Your task to perform on an android device: Go to display settings Image 0: 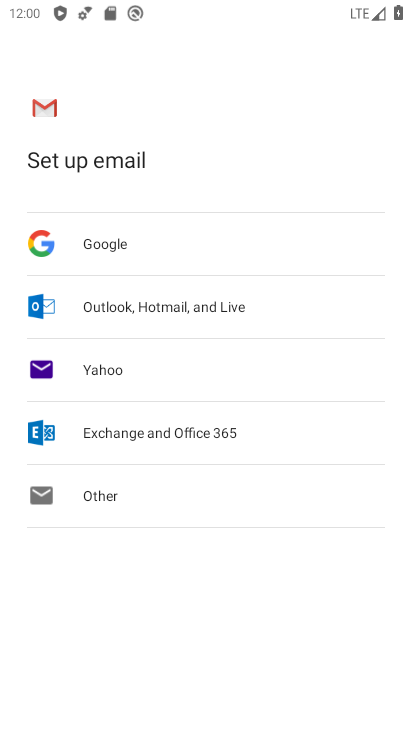
Step 0: press home button
Your task to perform on an android device: Go to display settings Image 1: 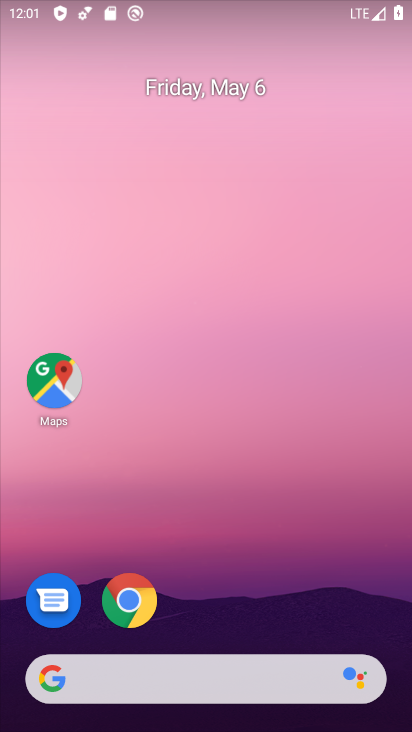
Step 1: drag from (317, 623) to (339, 162)
Your task to perform on an android device: Go to display settings Image 2: 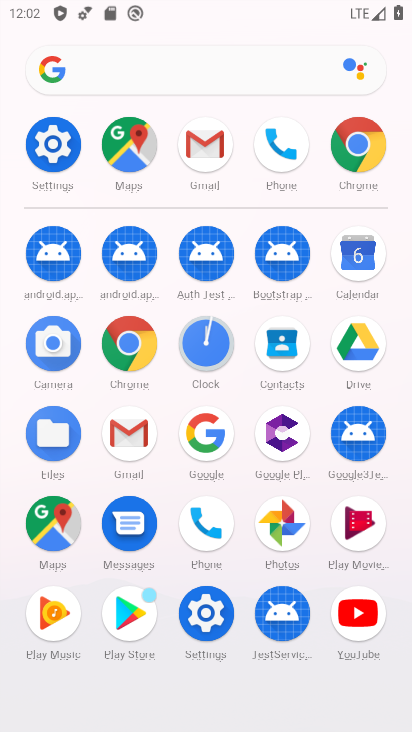
Step 2: click (212, 628)
Your task to perform on an android device: Go to display settings Image 3: 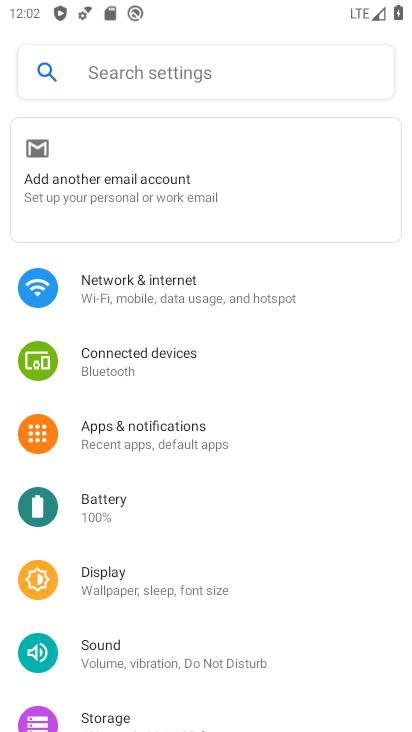
Step 3: click (213, 565)
Your task to perform on an android device: Go to display settings Image 4: 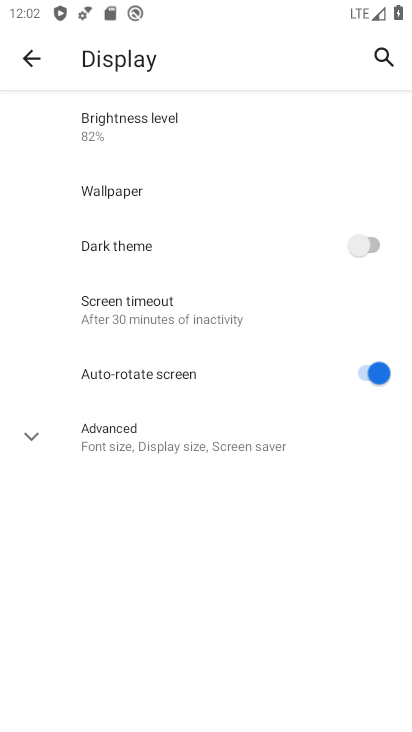
Step 4: task complete